Your task to perform on an android device: open chrome privacy settings Image 0: 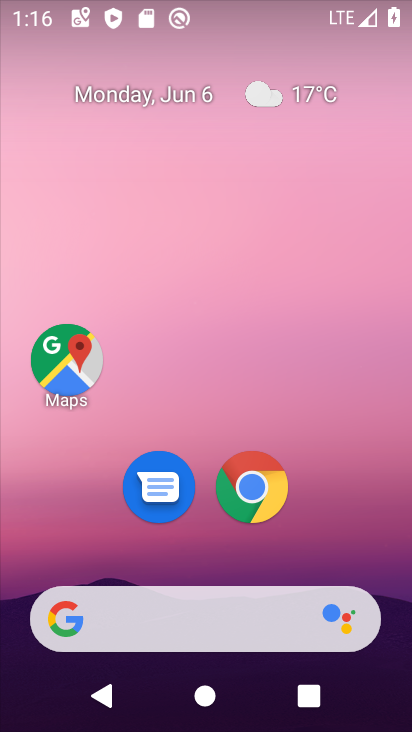
Step 0: click (250, 479)
Your task to perform on an android device: open chrome privacy settings Image 1: 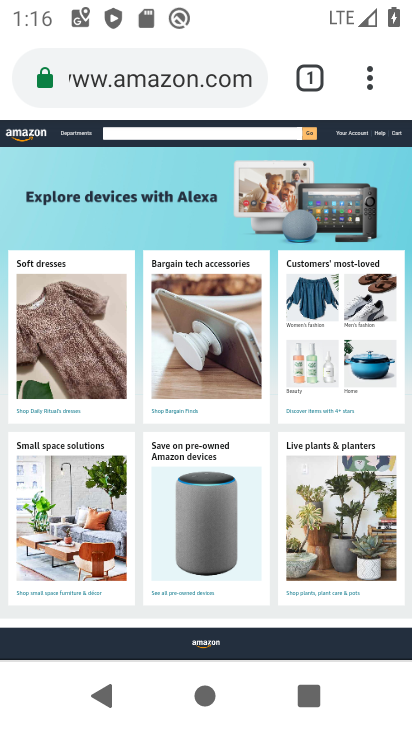
Step 1: drag from (371, 79) to (128, 542)
Your task to perform on an android device: open chrome privacy settings Image 2: 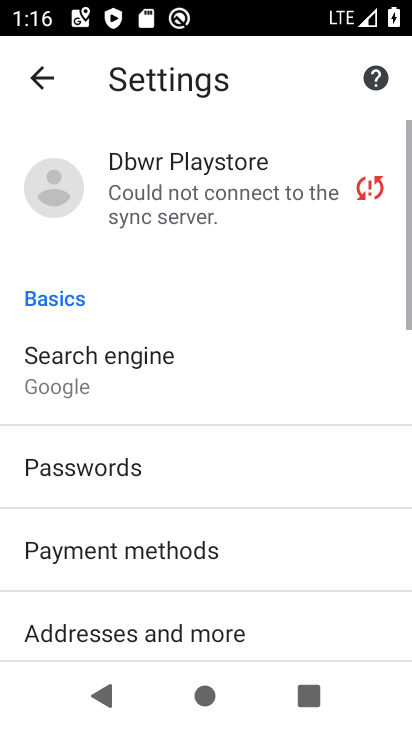
Step 2: drag from (191, 631) to (256, 146)
Your task to perform on an android device: open chrome privacy settings Image 3: 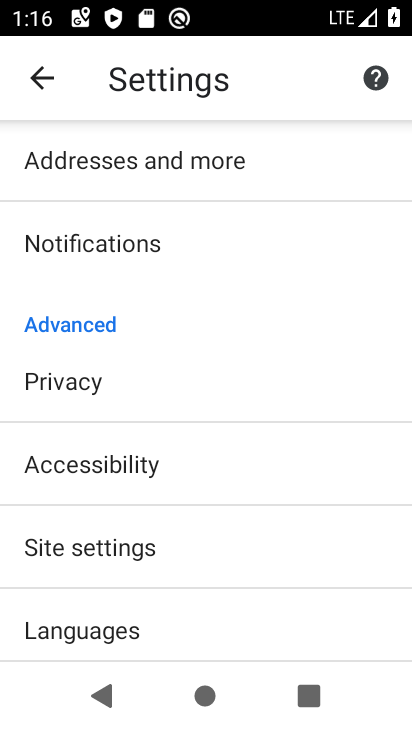
Step 3: click (21, 386)
Your task to perform on an android device: open chrome privacy settings Image 4: 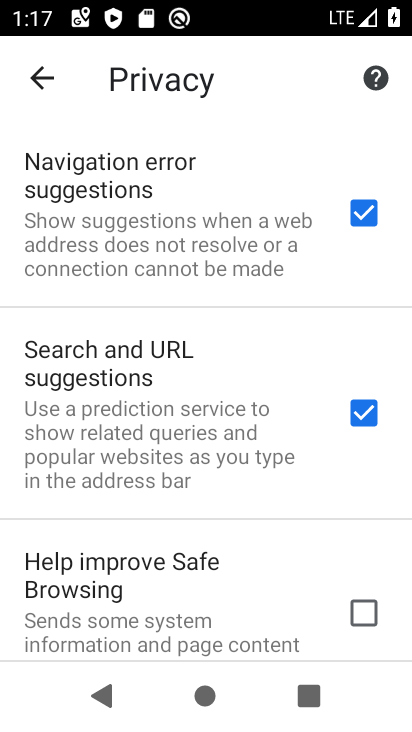
Step 4: task complete